Your task to perform on an android device: open chrome and create a bookmark for the current page Image 0: 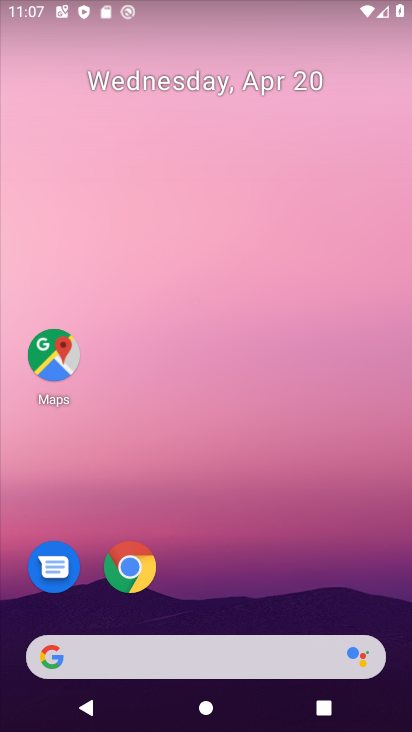
Step 0: drag from (224, 544) to (131, 29)
Your task to perform on an android device: open chrome and create a bookmark for the current page Image 1: 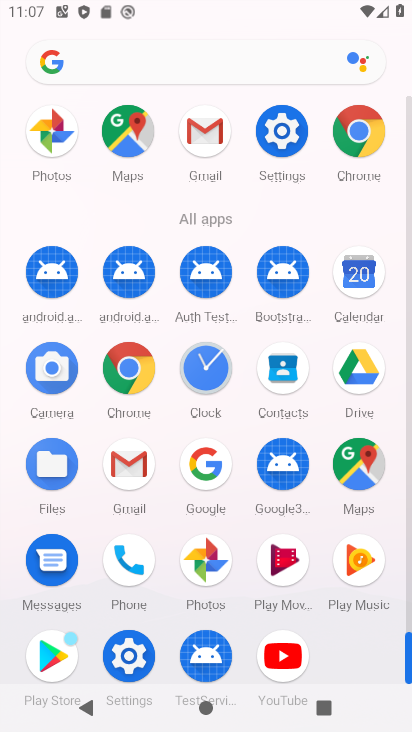
Step 1: drag from (13, 610) to (23, 293)
Your task to perform on an android device: open chrome and create a bookmark for the current page Image 2: 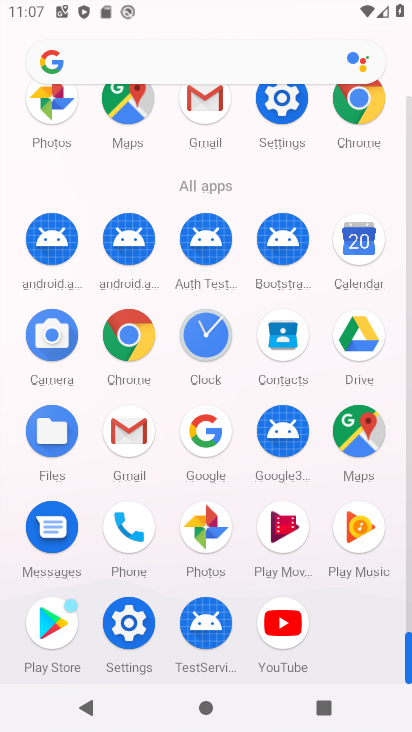
Step 2: click (127, 329)
Your task to perform on an android device: open chrome and create a bookmark for the current page Image 3: 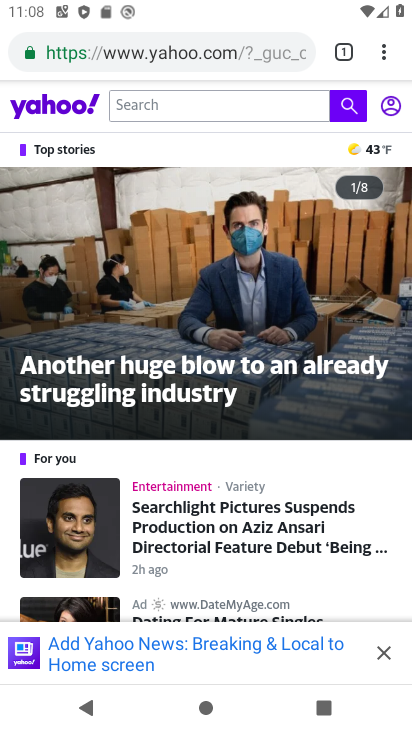
Step 3: task complete